Your task to perform on an android device: toggle data saver in the chrome app Image 0: 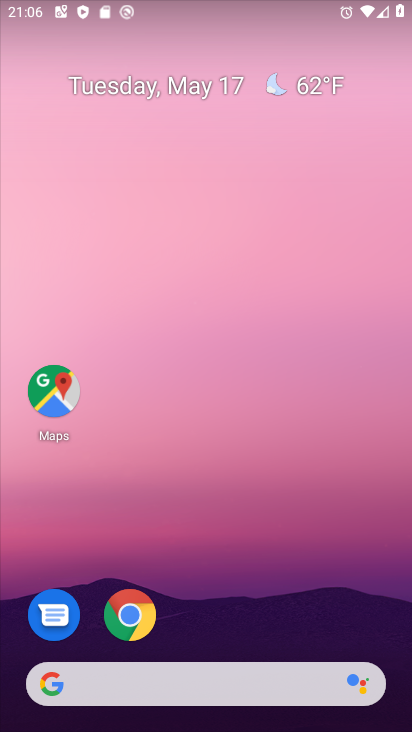
Step 0: click (142, 601)
Your task to perform on an android device: toggle data saver in the chrome app Image 1: 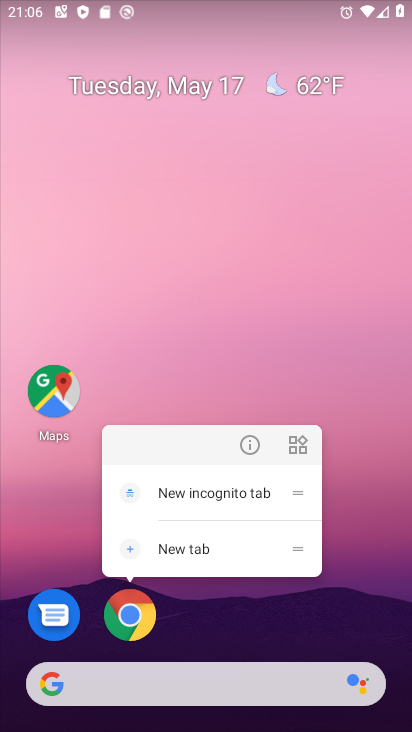
Step 1: click (120, 622)
Your task to perform on an android device: toggle data saver in the chrome app Image 2: 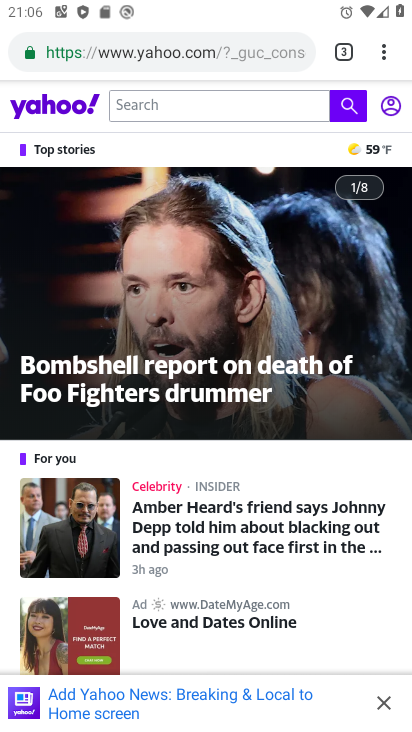
Step 2: drag from (377, 57) to (214, 620)
Your task to perform on an android device: toggle data saver in the chrome app Image 3: 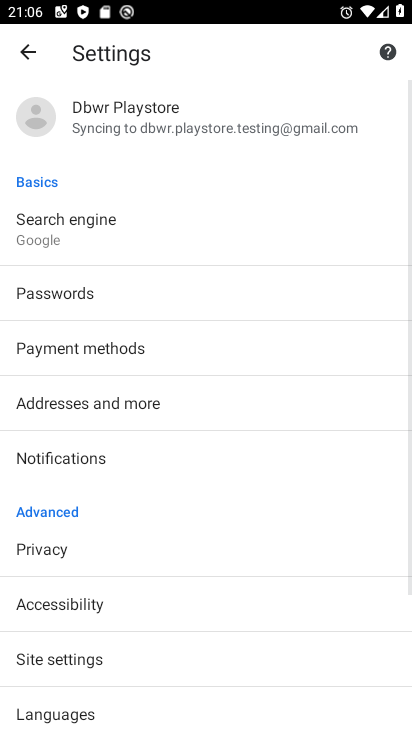
Step 3: drag from (179, 634) to (199, 303)
Your task to perform on an android device: toggle data saver in the chrome app Image 4: 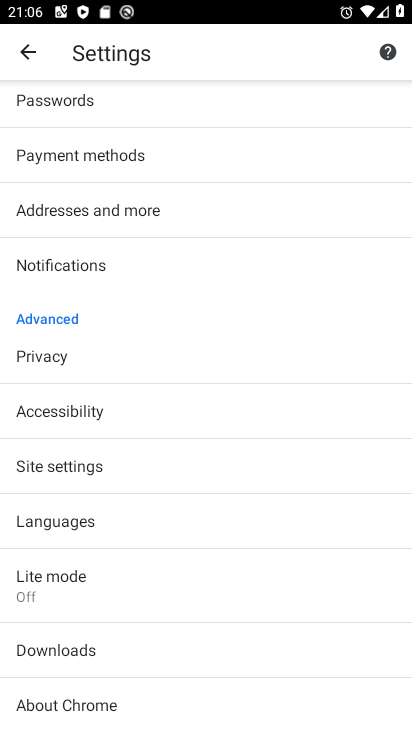
Step 4: click (65, 574)
Your task to perform on an android device: toggle data saver in the chrome app Image 5: 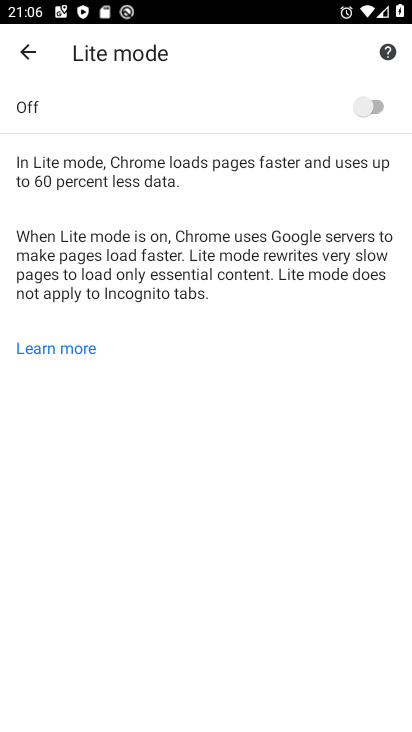
Step 5: click (363, 105)
Your task to perform on an android device: toggle data saver in the chrome app Image 6: 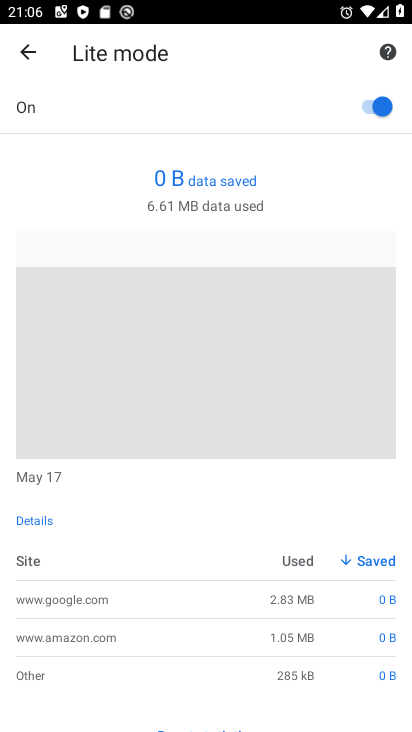
Step 6: task complete